Your task to perform on an android device: open chrome and create a bookmark for the current page Image 0: 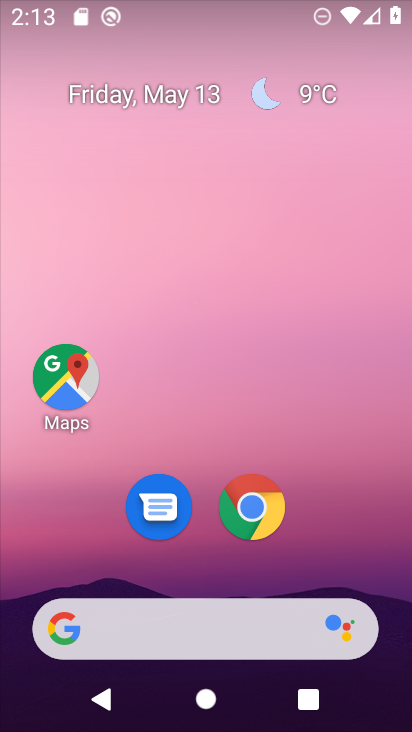
Step 0: drag from (340, 358) to (333, 15)
Your task to perform on an android device: open chrome and create a bookmark for the current page Image 1: 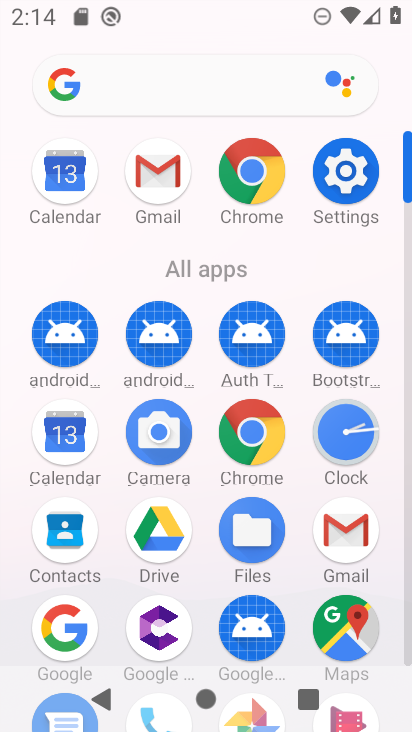
Step 1: click (245, 144)
Your task to perform on an android device: open chrome and create a bookmark for the current page Image 2: 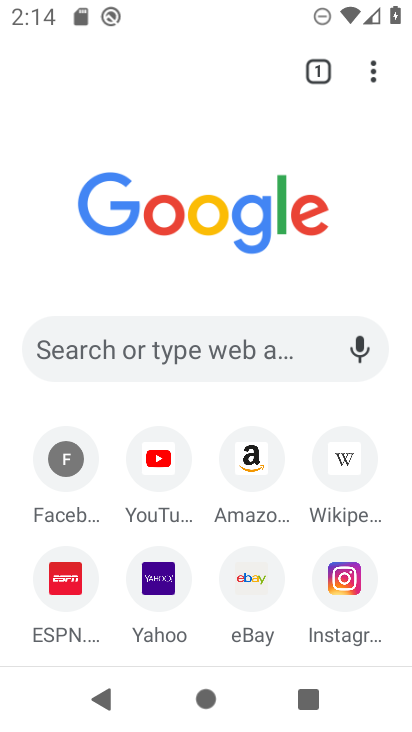
Step 2: task complete